Your task to perform on an android device: What is the news today? Image 0: 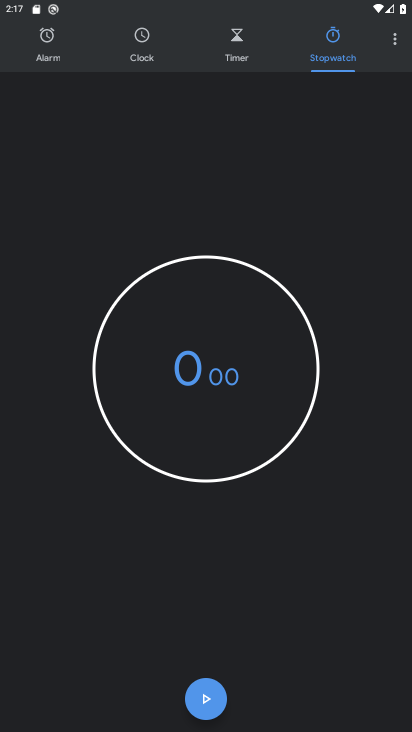
Step 0: press home button
Your task to perform on an android device: What is the news today? Image 1: 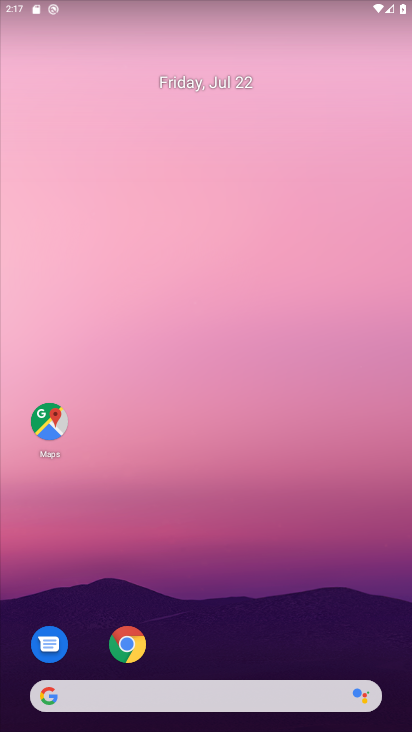
Step 1: drag from (167, 643) to (263, 5)
Your task to perform on an android device: What is the news today? Image 2: 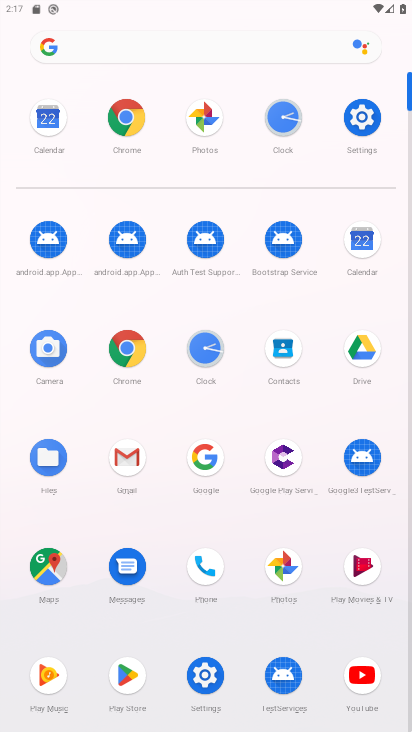
Step 2: click (121, 112)
Your task to perform on an android device: What is the news today? Image 3: 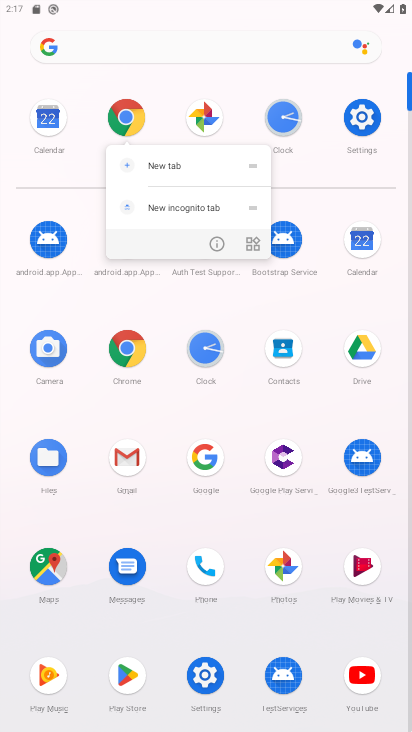
Step 3: click (121, 112)
Your task to perform on an android device: What is the news today? Image 4: 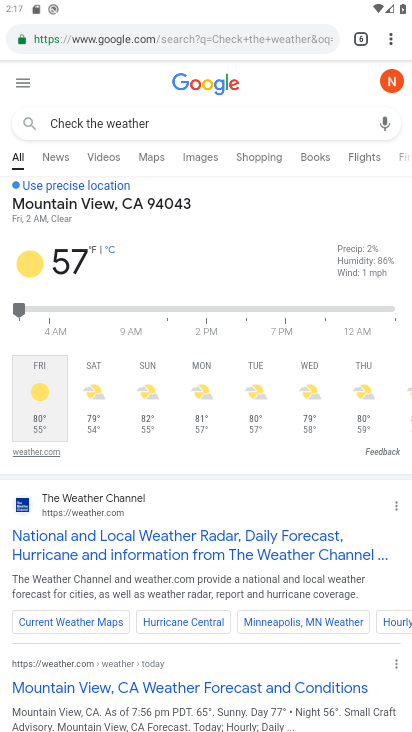
Step 4: click (387, 34)
Your task to perform on an android device: What is the news today? Image 5: 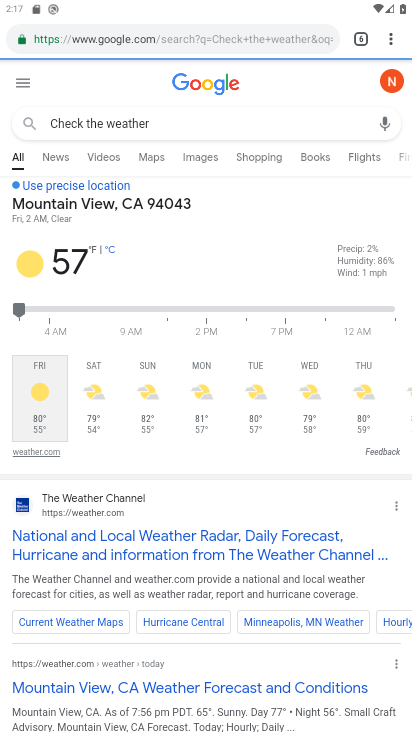
Step 5: click (387, 34)
Your task to perform on an android device: What is the news today? Image 6: 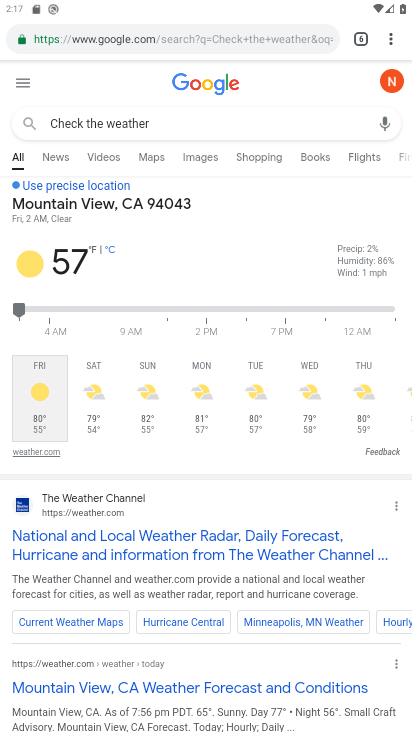
Step 6: click (402, 35)
Your task to perform on an android device: What is the news today? Image 7: 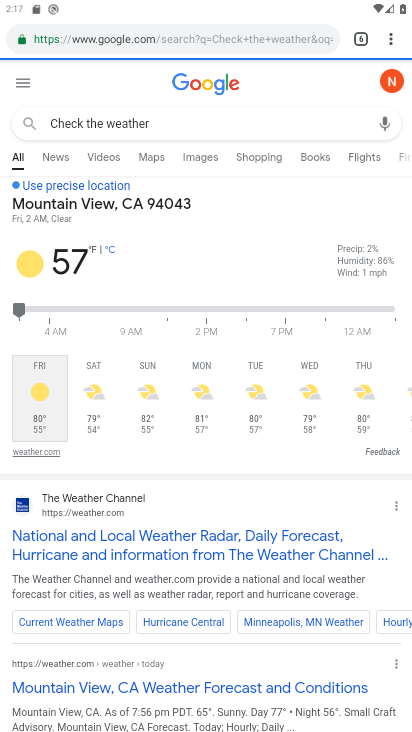
Step 7: click (401, 39)
Your task to perform on an android device: What is the news today? Image 8: 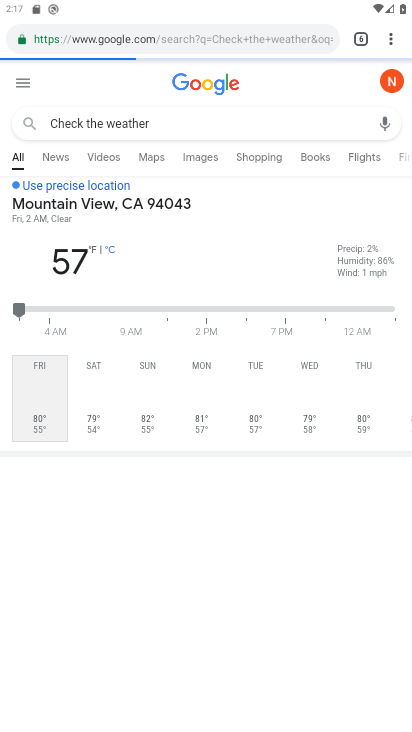
Step 8: click (401, 39)
Your task to perform on an android device: What is the news today? Image 9: 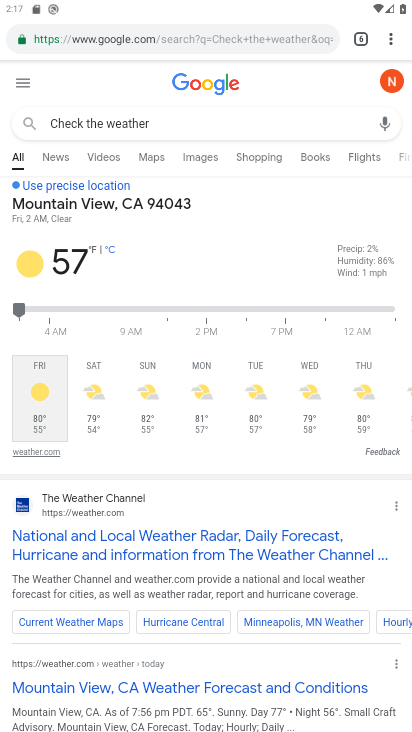
Step 9: click (401, 39)
Your task to perform on an android device: What is the news today? Image 10: 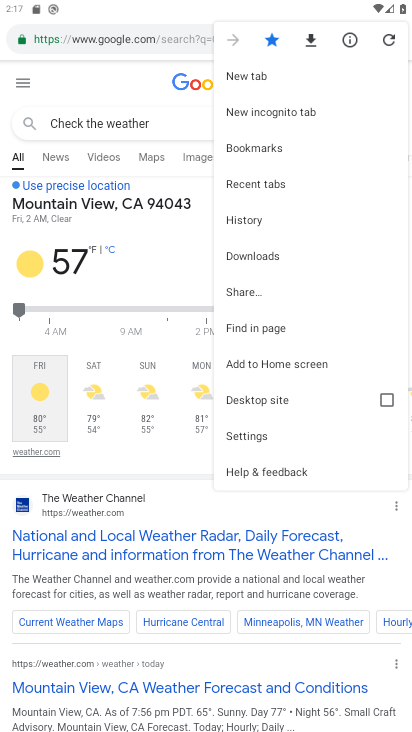
Step 10: click (247, 74)
Your task to perform on an android device: What is the news today? Image 11: 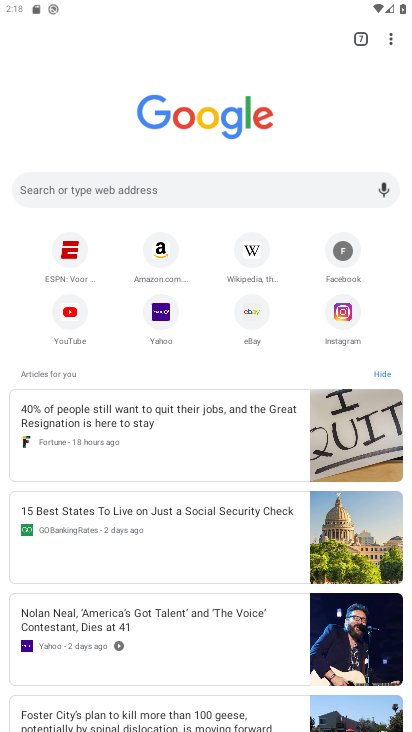
Step 11: click (219, 183)
Your task to perform on an android device: What is the news today? Image 12: 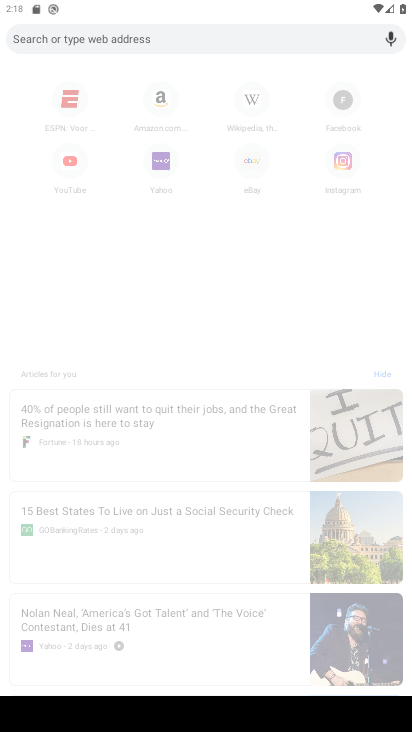
Step 12: type "What is the news today "
Your task to perform on an android device: What is the news today? Image 13: 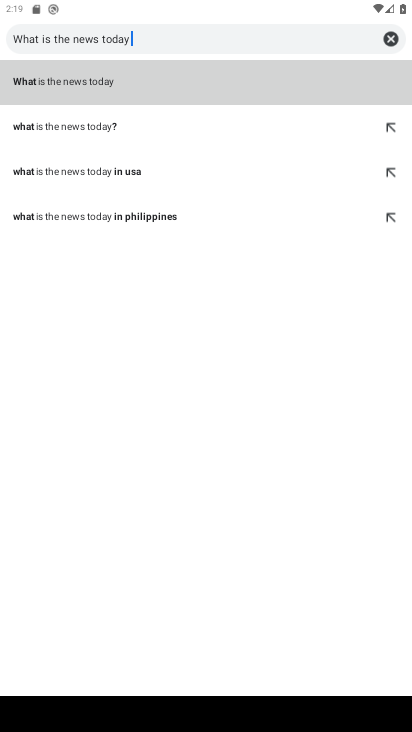
Step 13: click (243, 86)
Your task to perform on an android device: What is the news today? Image 14: 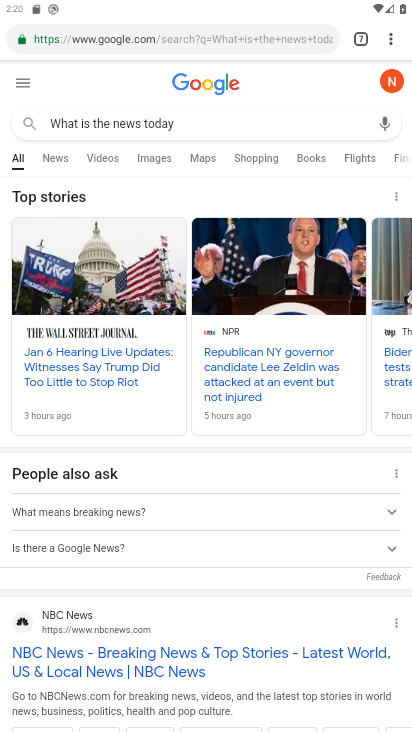
Step 14: task complete